Your task to perform on an android device: Search for hotels in Boston Image 0: 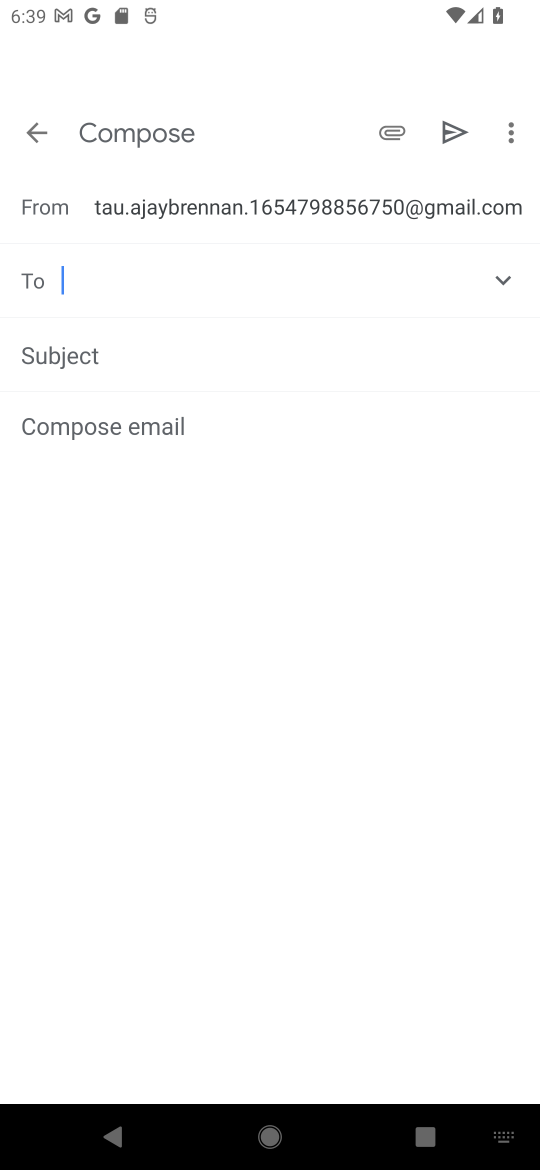
Step 0: press home button
Your task to perform on an android device: Search for hotels in Boston Image 1: 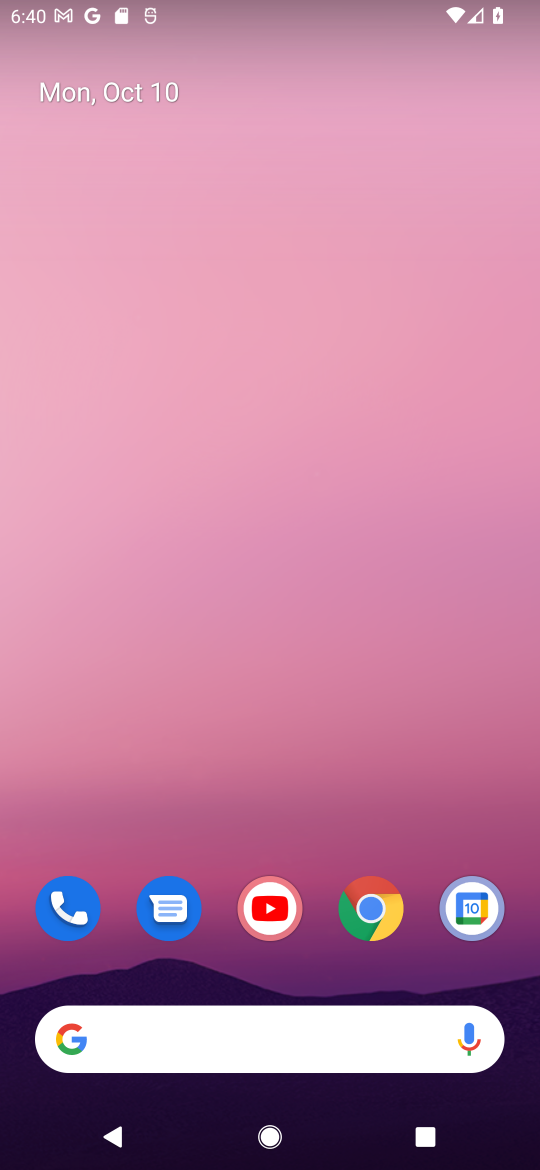
Step 1: drag from (318, 982) to (286, 146)
Your task to perform on an android device: Search for hotels in Boston Image 2: 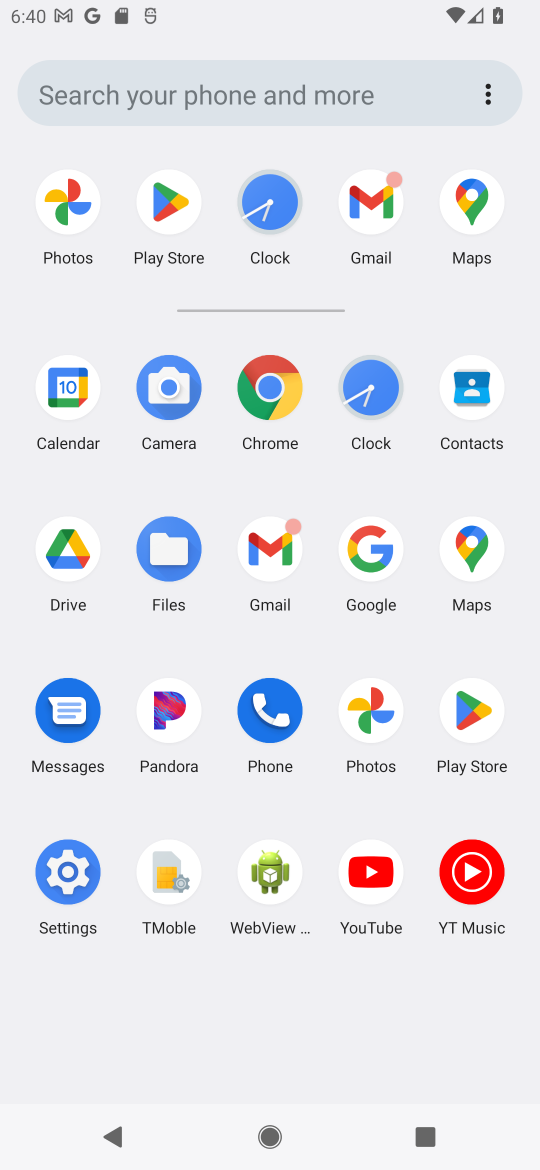
Step 2: click (275, 375)
Your task to perform on an android device: Search for hotels in Boston Image 3: 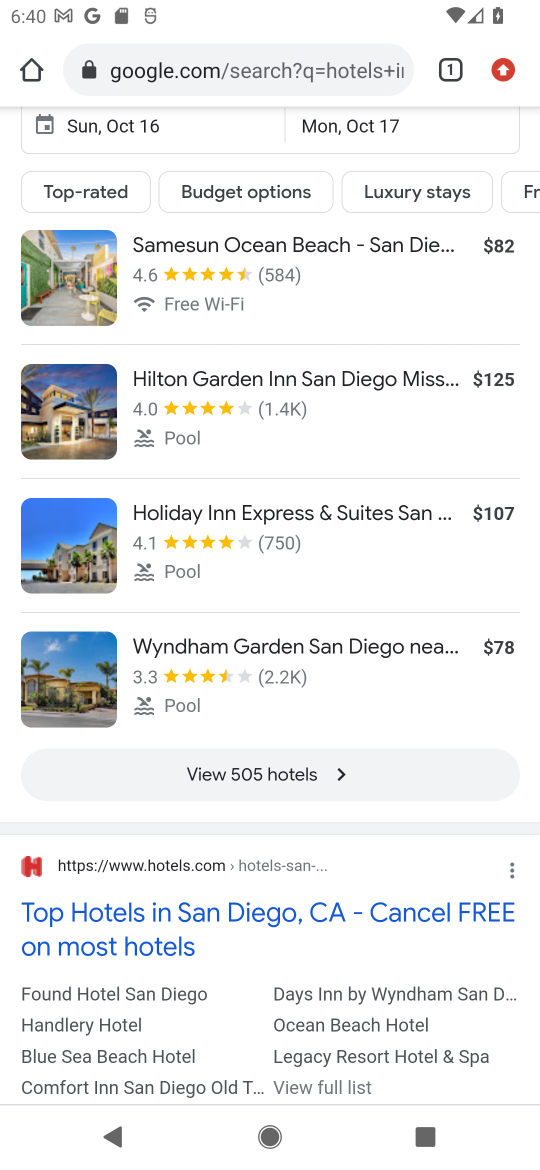
Step 3: click (327, 86)
Your task to perform on an android device: Search for hotels in Boston Image 4: 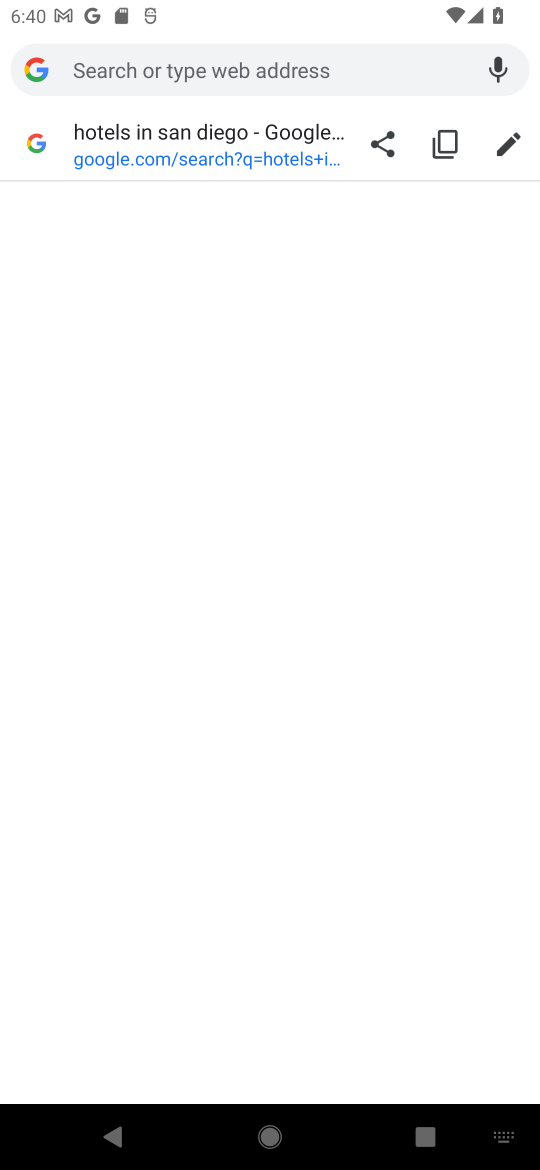
Step 4: type "hotels in Boston"
Your task to perform on an android device: Search for hotels in Boston Image 5: 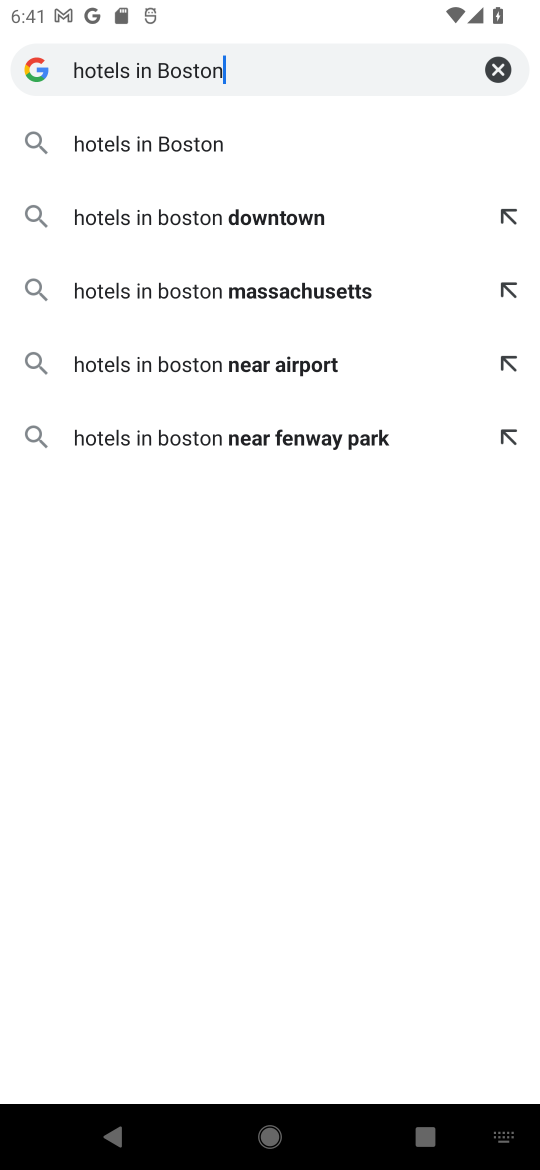
Step 5: press enter
Your task to perform on an android device: Search for hotels in Boston Image 6: 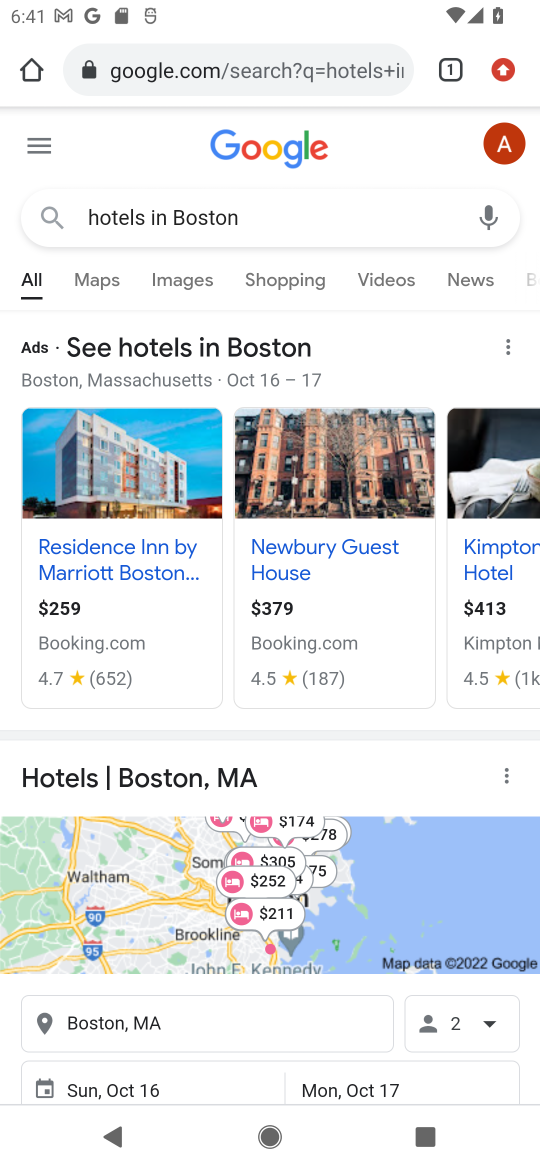
Step 6: task complete